Your task to perform on an android device: change the clock display to analog Image 0: 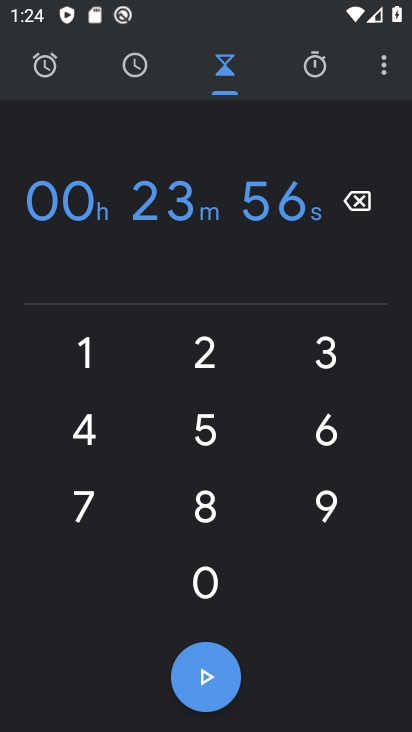
Step 0: click (382, 68)
Your task to perform on an android device: change the clock display to analog Image 1: 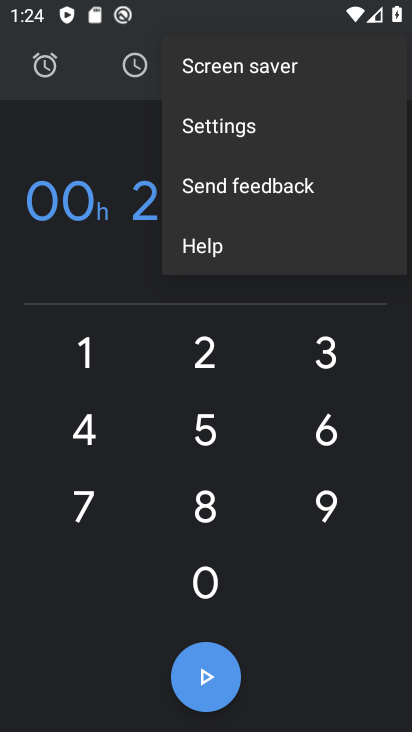
Step 1: click (255, 123)
Your task to perform on an android device: change the clock display to analog Image 2: 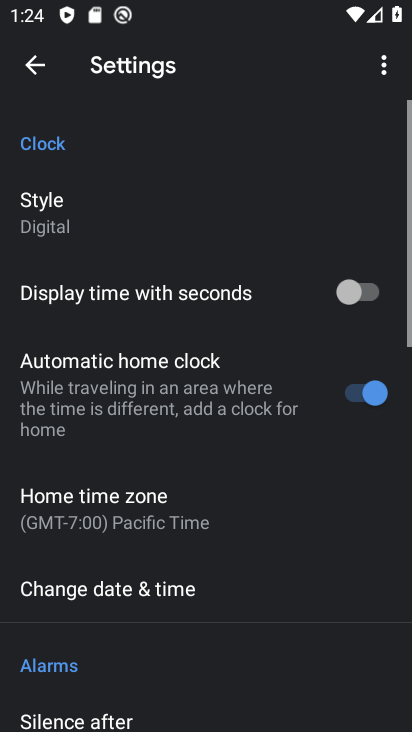
Step 2: click (104, 198)
Your task to perform on an android device: change the clock display to analog Image 3: 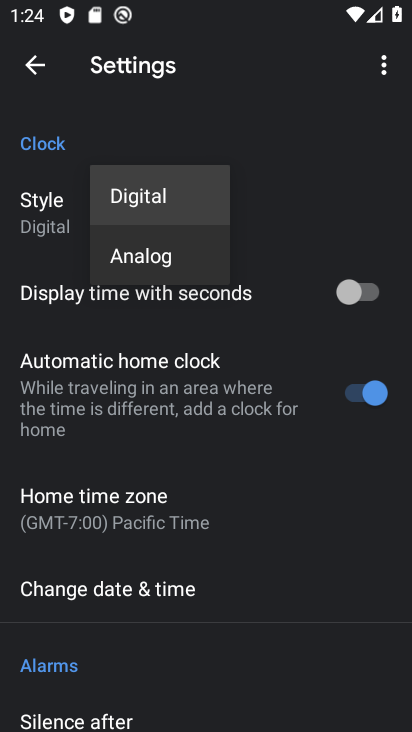
Step 3: click (146, 258)
Your task to perform on an android device: change the clock display to analog Image 4: 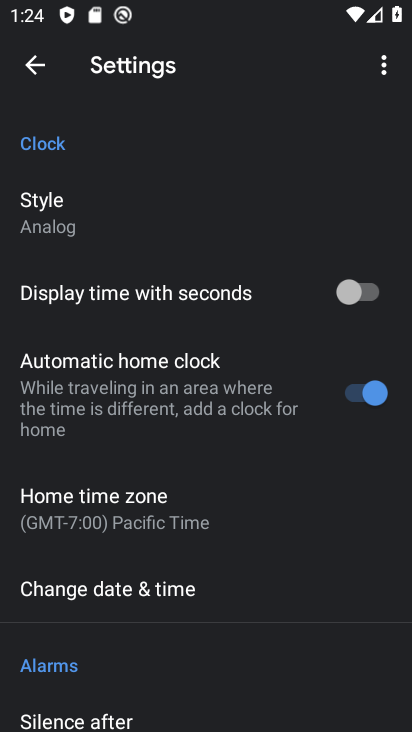
Step 4: task complete